Your task to perform on an android device: toggle pop-ups in chrome Image 0: 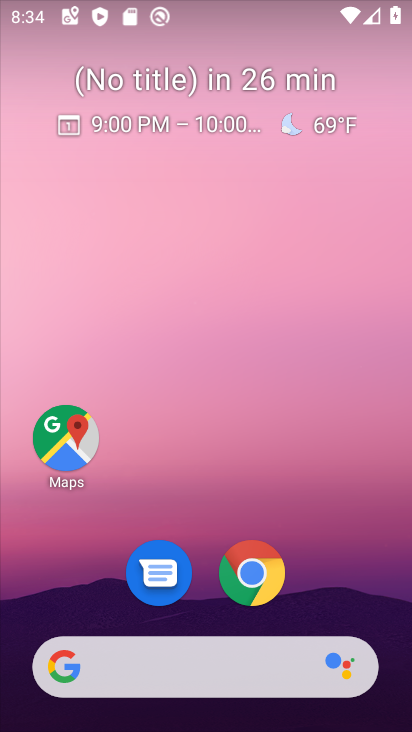
Step 0: click (247, 573)
Your task to perform on an android device: toggle pop-ups in chrome Image 1: 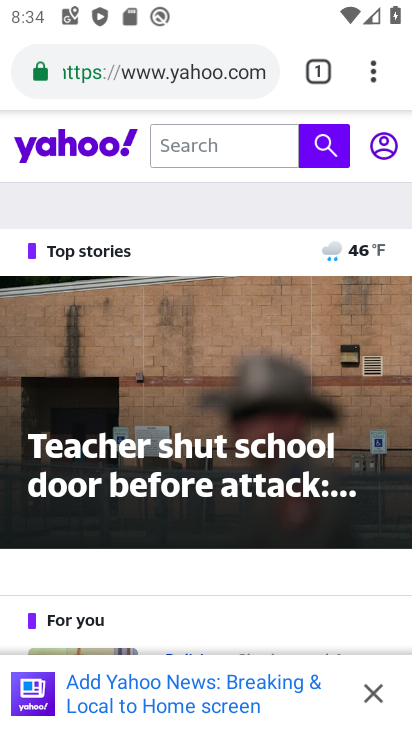
Step 1: click (372, 70)
Your task to perform on an android device: toggle pop-ups in chrome Image 2: 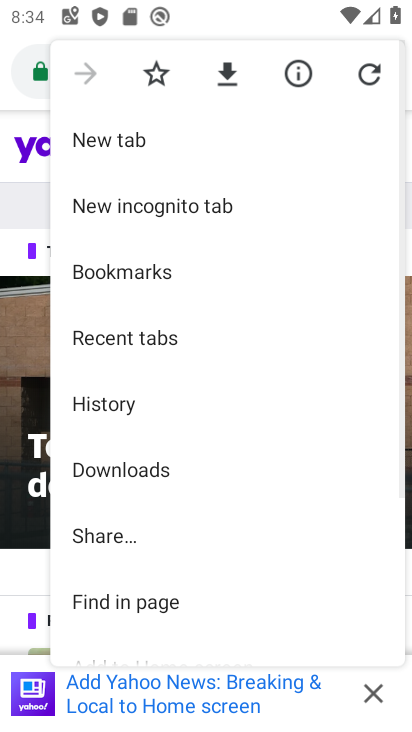
Step 2: drag from (160, 539) to (183, 176)
Your task to perform on an android device: toggle pop-ups in chrome Image 3: 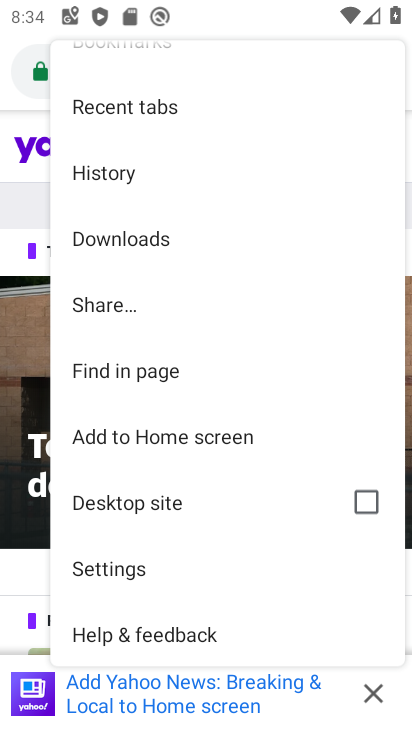
Step 3: click (132, 576)
Your task to perform on an android device: toggle pop-ups in chrome Image 4: 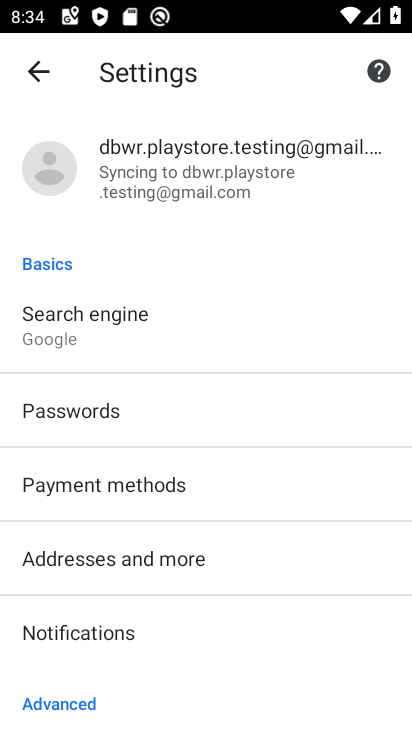
Step 4: drag from (118, 627) to (109, 301)
Your task to perform on an android device: toggle pop-ups in chrome Image 5: 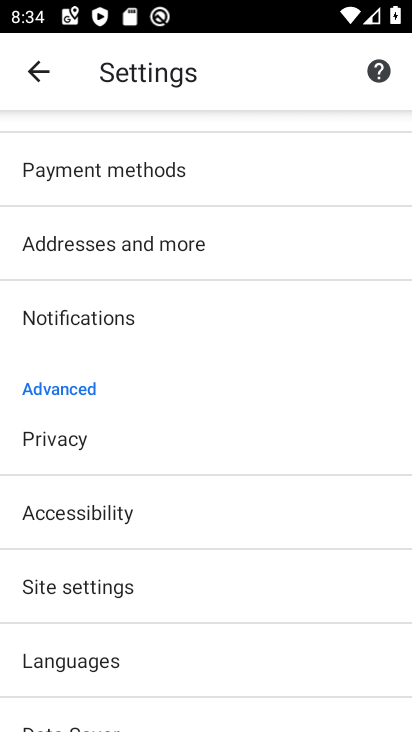
Step 5: click (112, 592)
Your task to perform on an android device: toggle pop-ups in chrome Image 6: 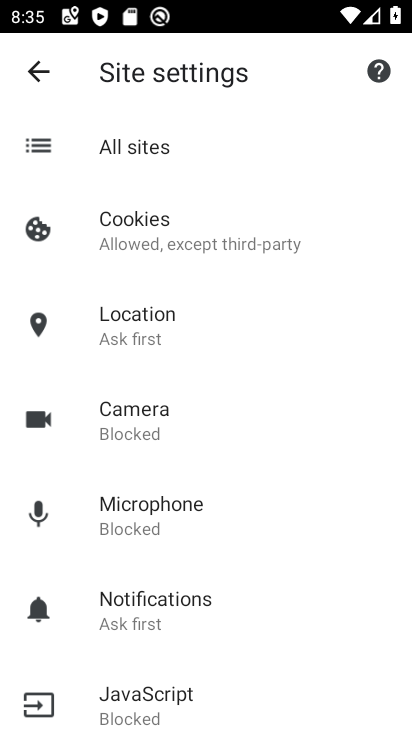
Step 6: drag from (141, 653) to (164, 415)
Your task to perform on an android device: toggle pop-ups in chrome Image 7: 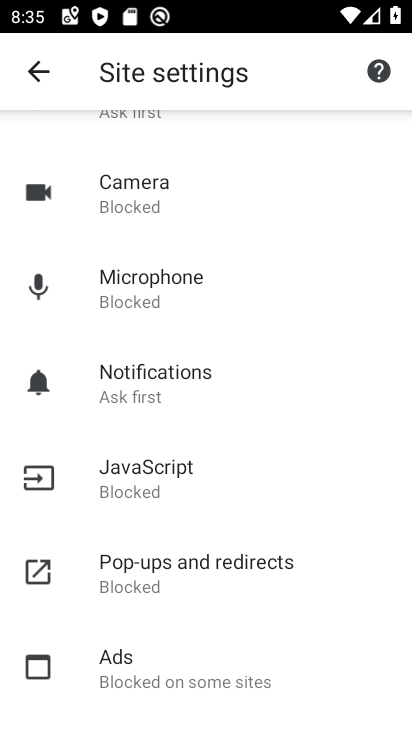
Step 7: click (178, 576)
Your task to perform on an android device: toggle pop-ups in chrome Image 8: 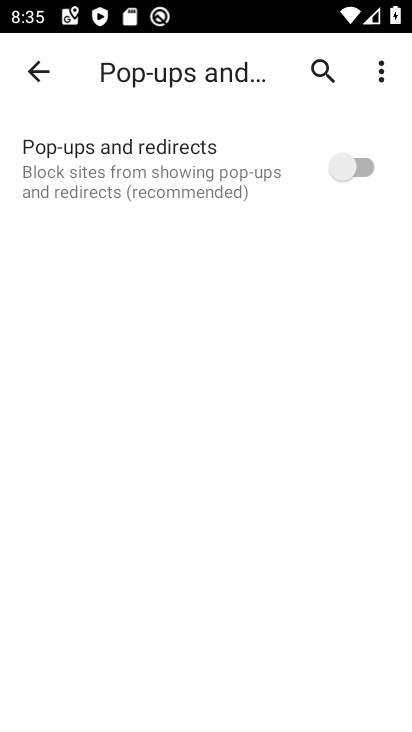
Step 8: click (369, 160)
Your task to perform on an android device: toggle pop-ups in chrome Image 9: 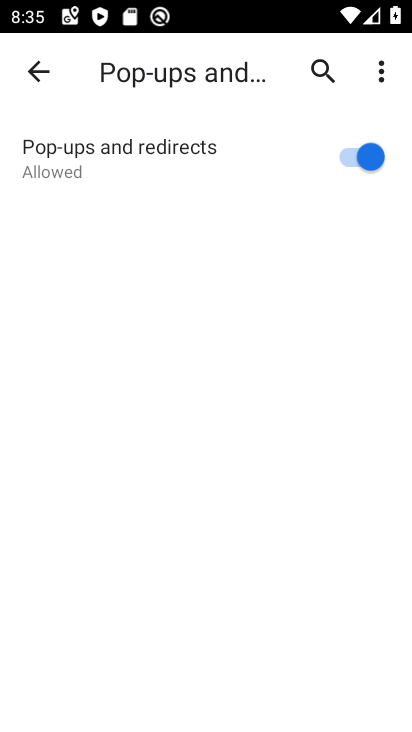
Step 9: task complete